Your task to perform on an android device: star an email in the gmail app Image 0: 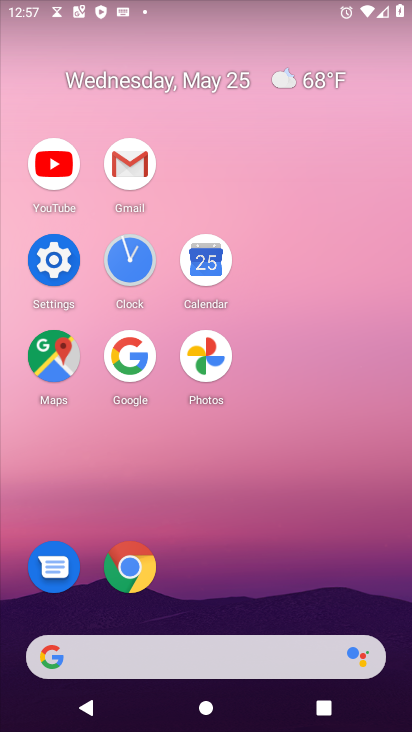
Step 0: click (137, 180)
Your task to perform on an android device: star an email in the gmail app Image 1: 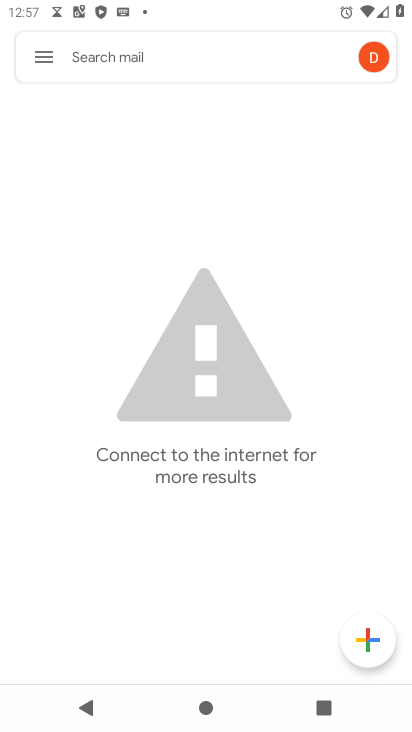
Step 1: click (43, 62)
Your task to perform on an android device: star an email in the gmail app Image 2: 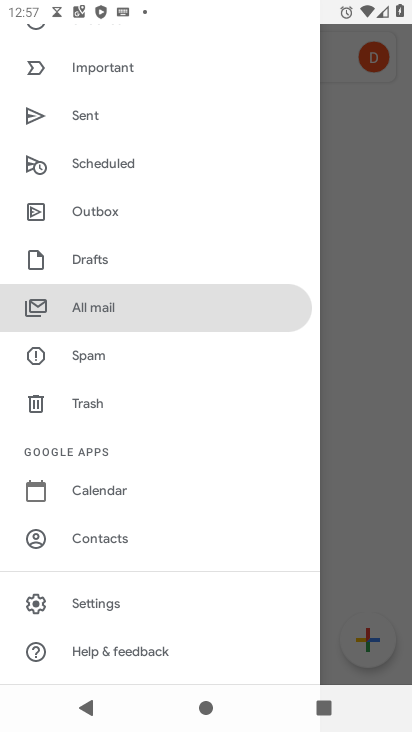
Step 2: click (140, 306)
Your task to perform on an android device: star an email in the gmail app Image 3: 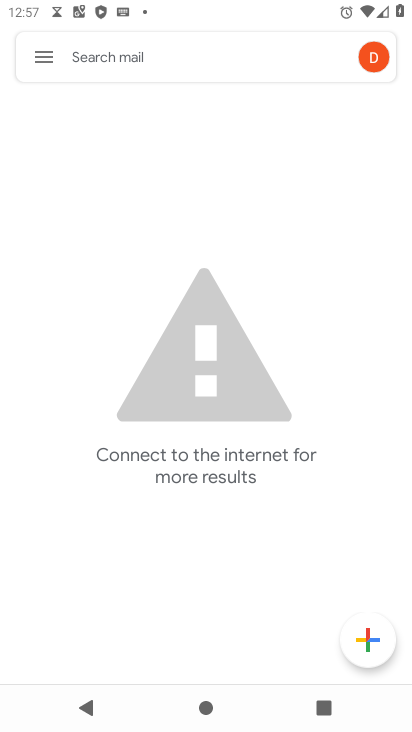
Step 3: task complete